Your task to perform on an android device: check the backup settings in the google photos Image 0: 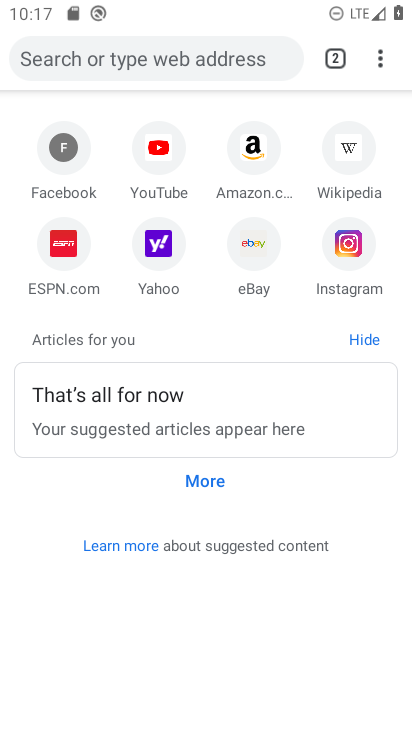
Step 0: press home button
Your task to perform on an android device: check the backup settings in the google photos Image 1: 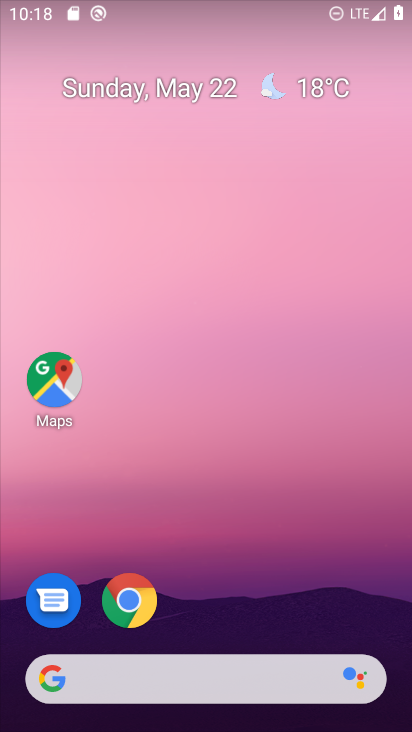
Step 1: drag from (294, 590) to (278, 5)
Your task to perform on an android device: check the backup settings in the google photos Image 2: 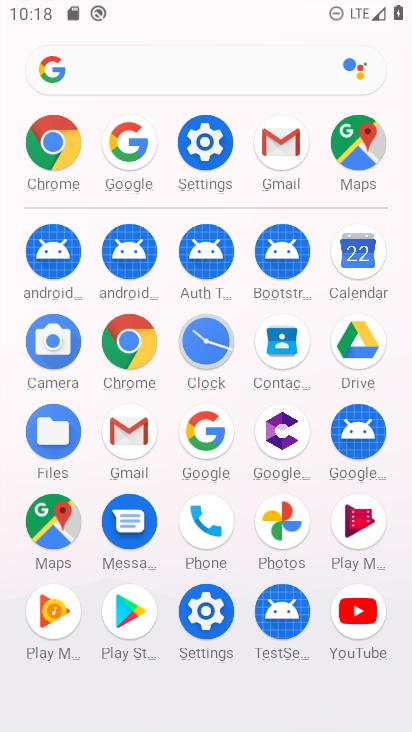
Step 2: click (287, 535)
Your task to perform on an android device: check the backup settings in the google photos Image 3: 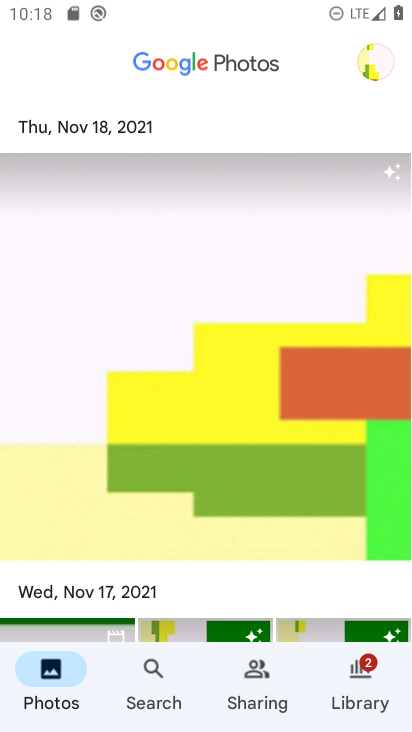
Step 3: task complete